Your task to perform on an android device: Open Chrome and go to the settings page Image 0: 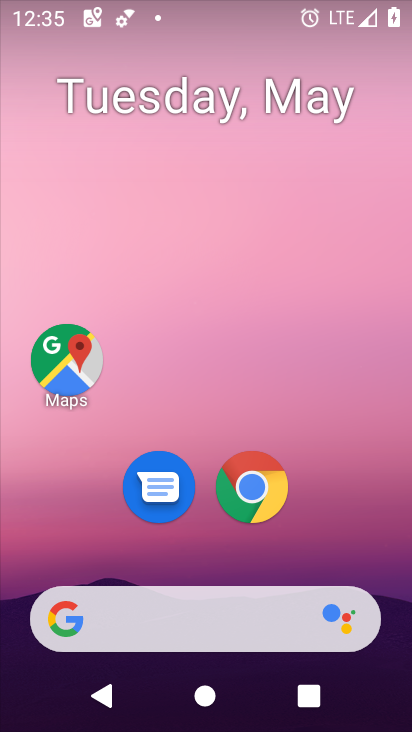
Step 0: click (251, 492)
Your task to perform on an android device: Open Chrome and go to the settings page Image 1: 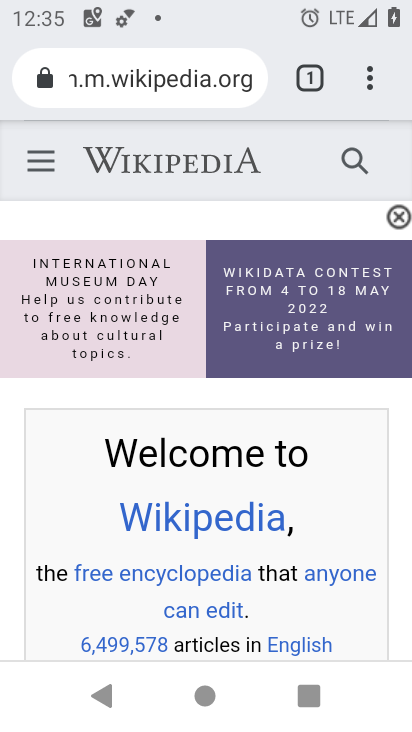
Step 1: click (361, 83)
Your task to perform on an android device: Open Chrome and go to the settings page Image 2: 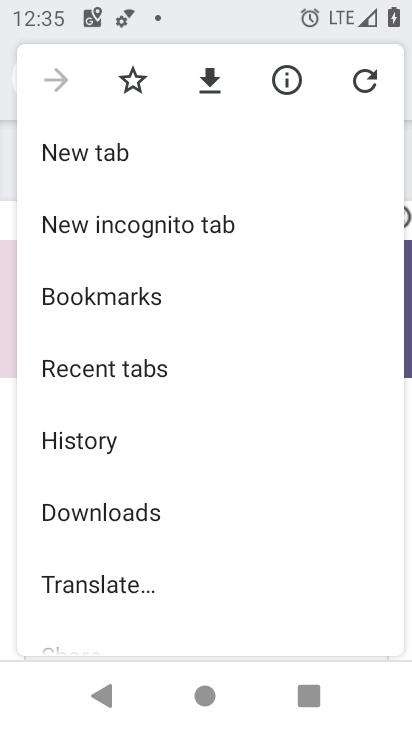
Step 2: drag from (83, 470) to (262, 41)
Your task to perform on an android device: Open Chrome and go to the settings page Image 3: 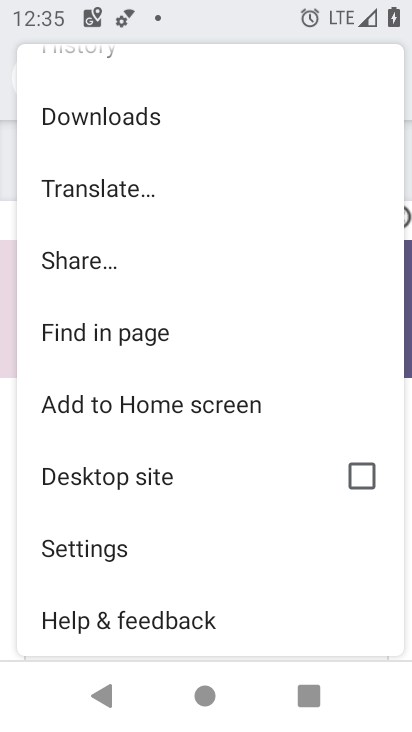
Step 3: click (96, 544)
Your task to perform on an android device: Open Chrome and go to the settings page Image 4: 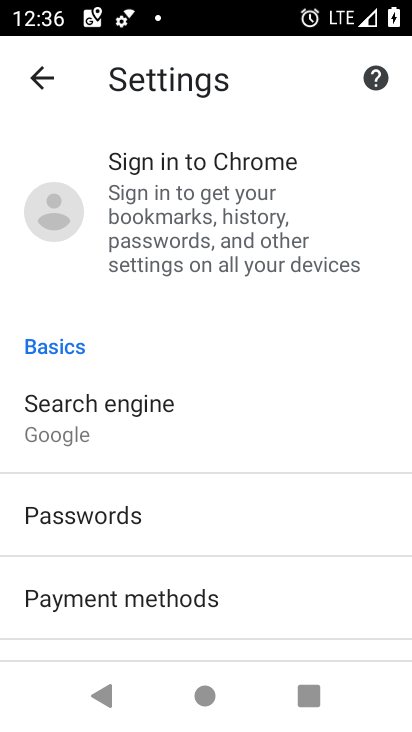
Step 4: task complete